Your task to perform on an android device: see tabs open on other devices in the chrome app Image 0: 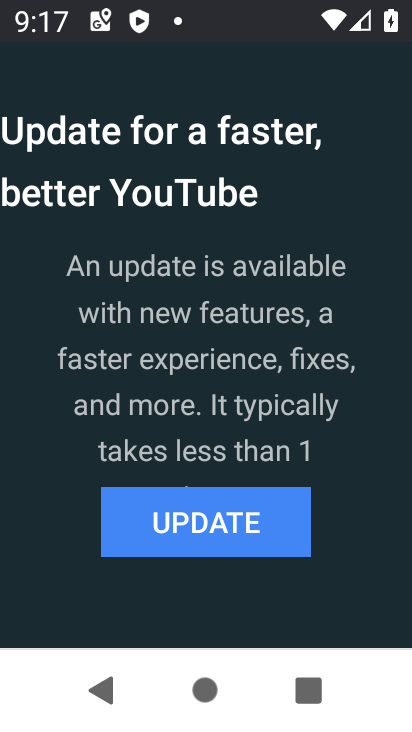
Step 0: press home button
Your task to perform on an android device: see tabs open on other devices in the chrome app Image 1: 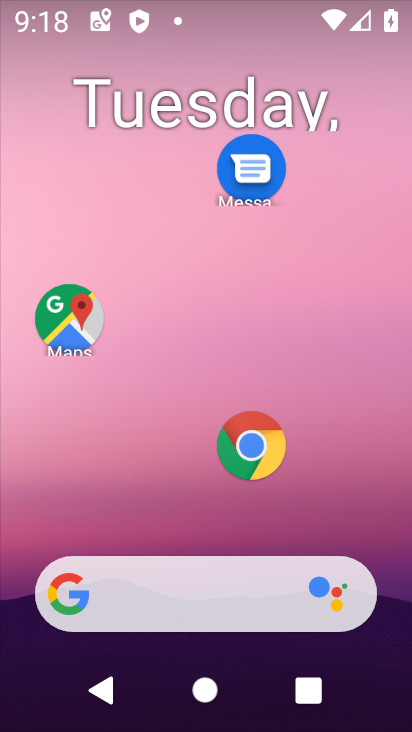
Step 1: click (249, 447)
Your task to perform on an android device: see tabs open on other devices in the chrome app Image 2: 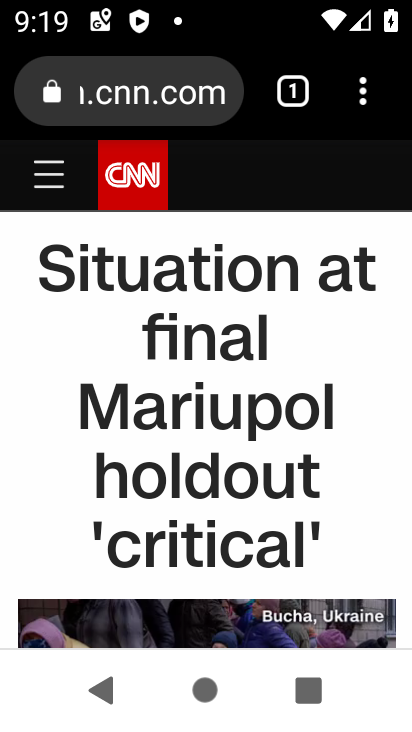
Step 2: task complete